Your task to perform on an android device: View the shopping cart on newegg. Add acer predator to the cart on newegg, then select checkout. Image 0: 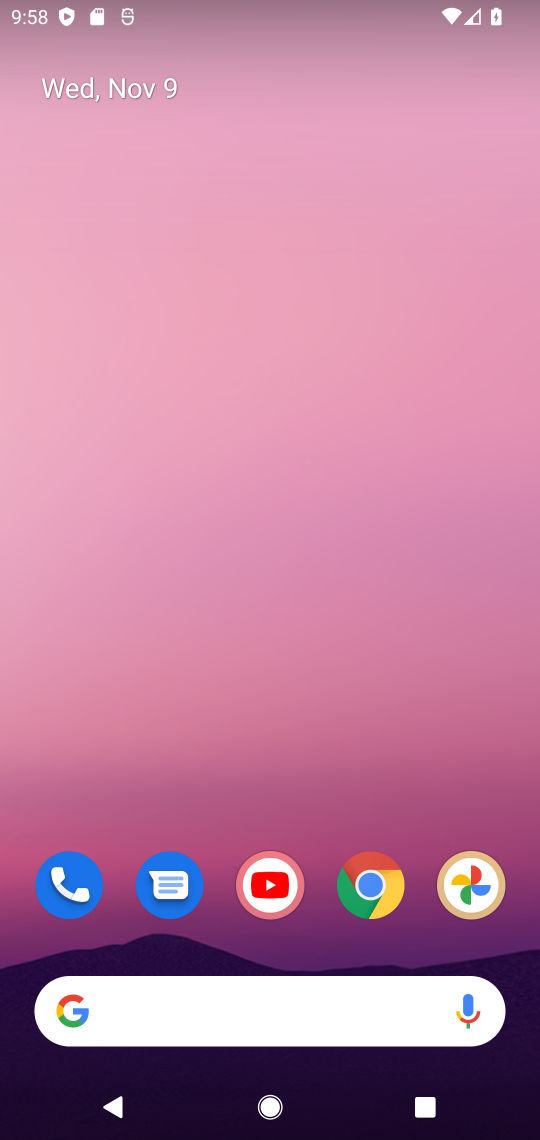
Step 0: click (375, 880)
Your task to perform on an android device: View the shopping cart on newegg. Add acer predator to the cart on newegg, then select checkout. Image 1: 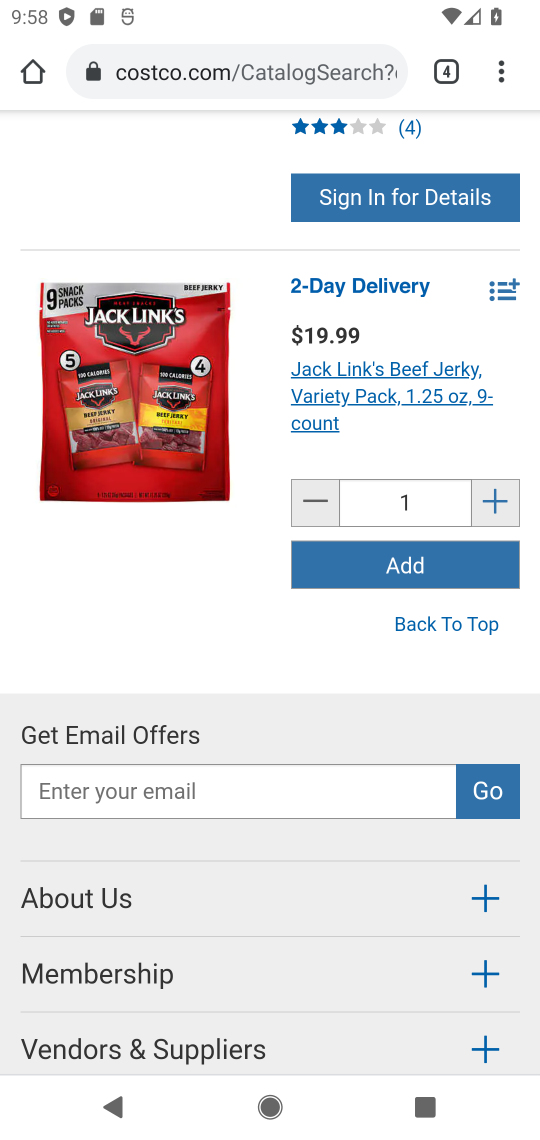
Step 1: click (446, 68)
Your task to perform on an android device: View the shopping cart on newegg. Add acer predator to the cart on newegg, then select checkout. Image 2: 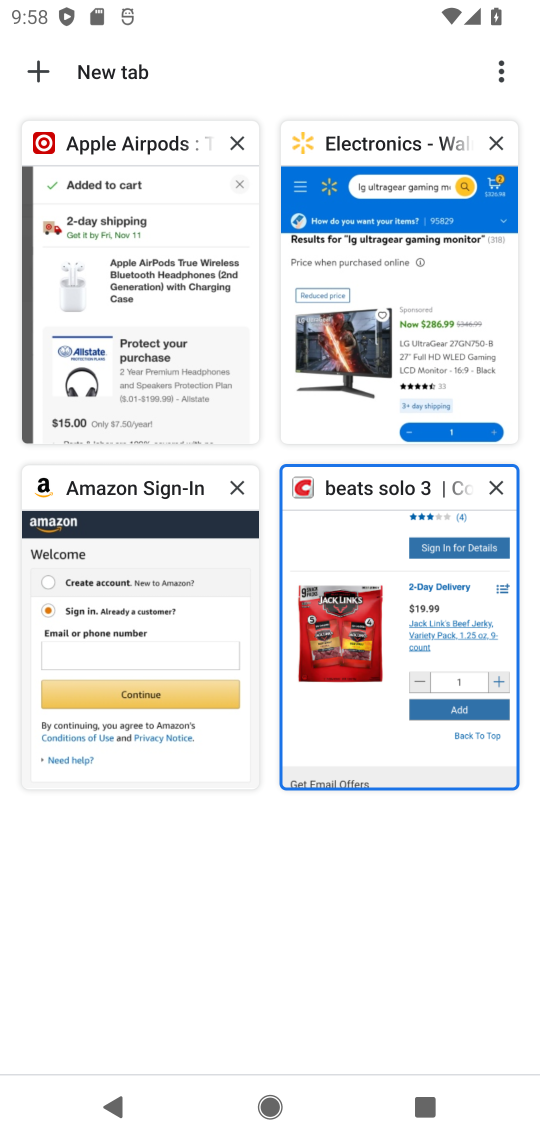
Step 2: click (38, 67)
Your task to perform on an android device: View the shopping cart on newegg. Add acer predator to the cart on newegg, then select checkout. Image 3: 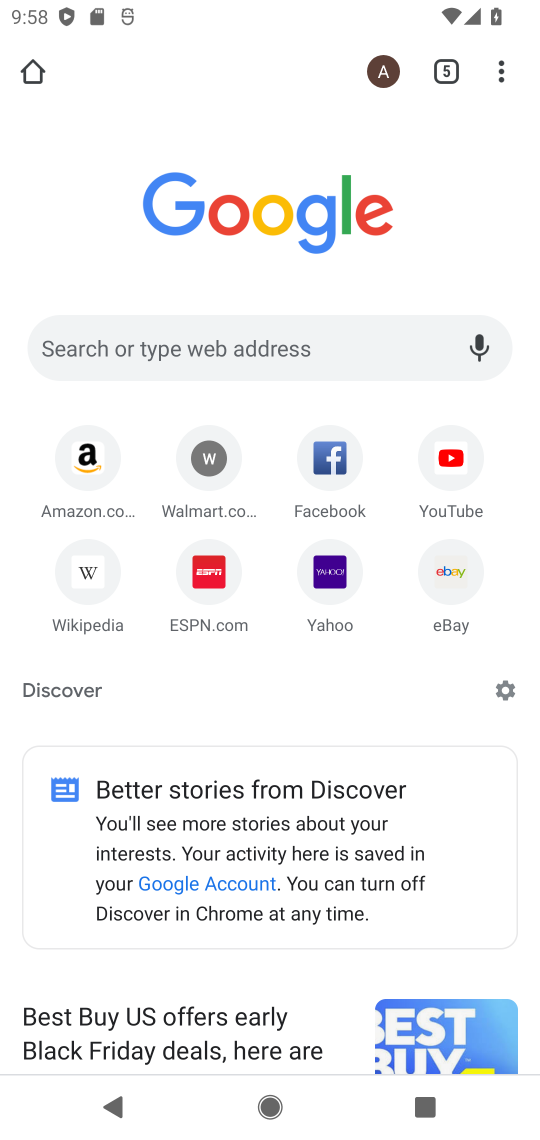
Step 3: click (212, 342)
Your task to perform on an android device: View the shopping cart on newegg. Add acer predator to the cart on newegg, then select checkout. Image 4: 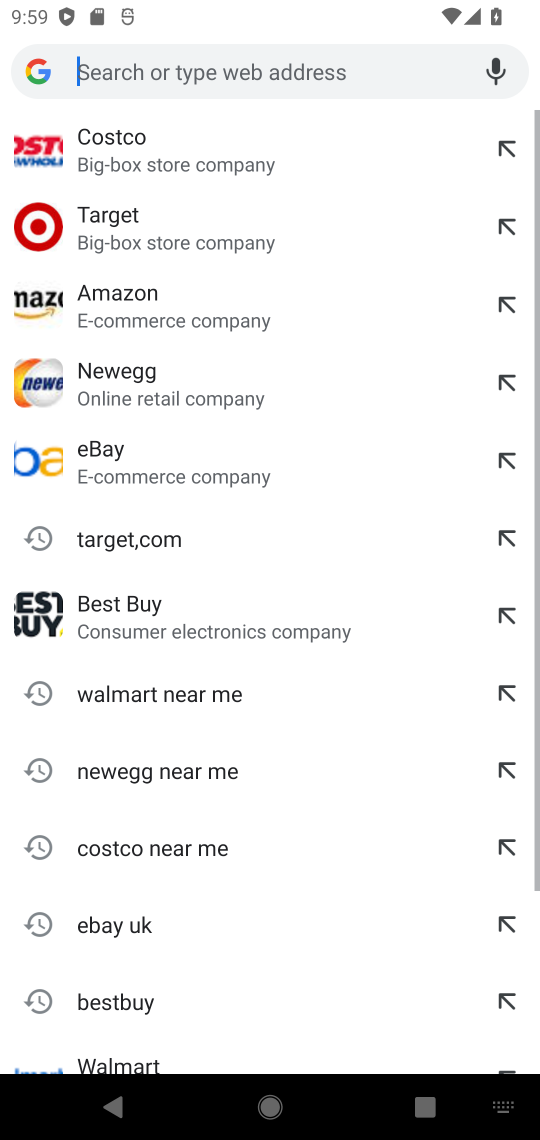
Step 4: click (137, 381)
Your task to perform on an android device: View the shopping cart on newegg. Add acer predator to the cart on newegg, then select checkout. Image 5: 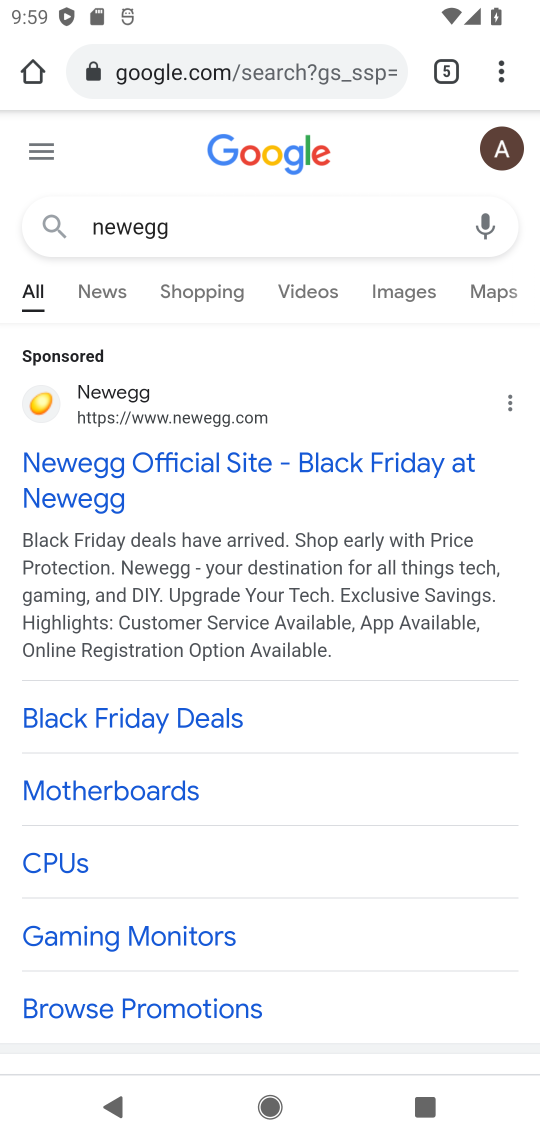
Step 5: click (98, 473)
Your task to perform on an android device: View the shopping cart on newegg. Add acer predator to the cart on newegg, then select checkout. Image 6: 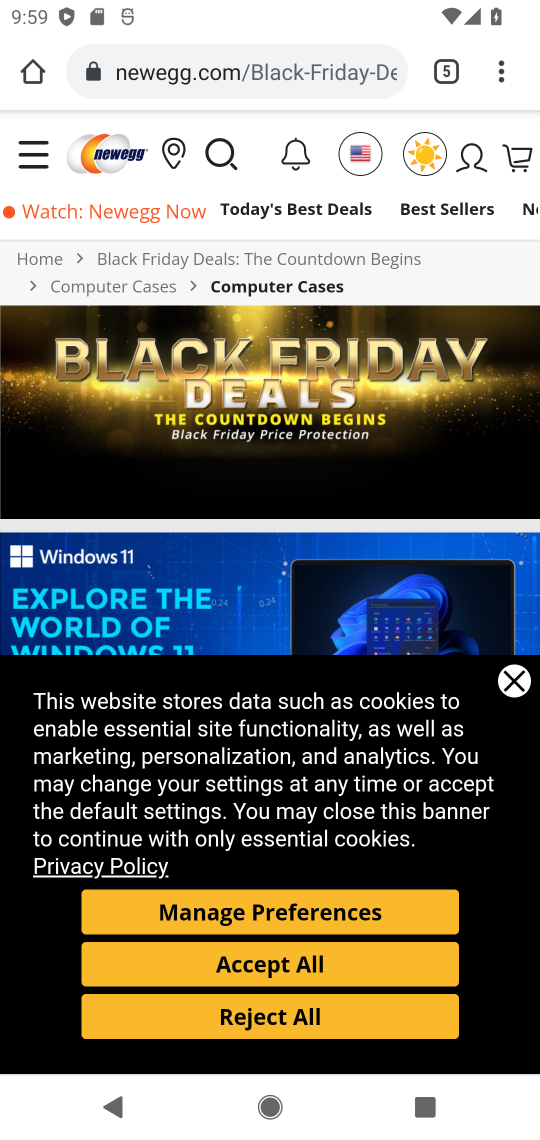
Step 6: click (217, 141)
Your task to perform on an android device: View the shopping cart on newegg. Add acer predator to the cart on newegg, then select checkout. Image 7: 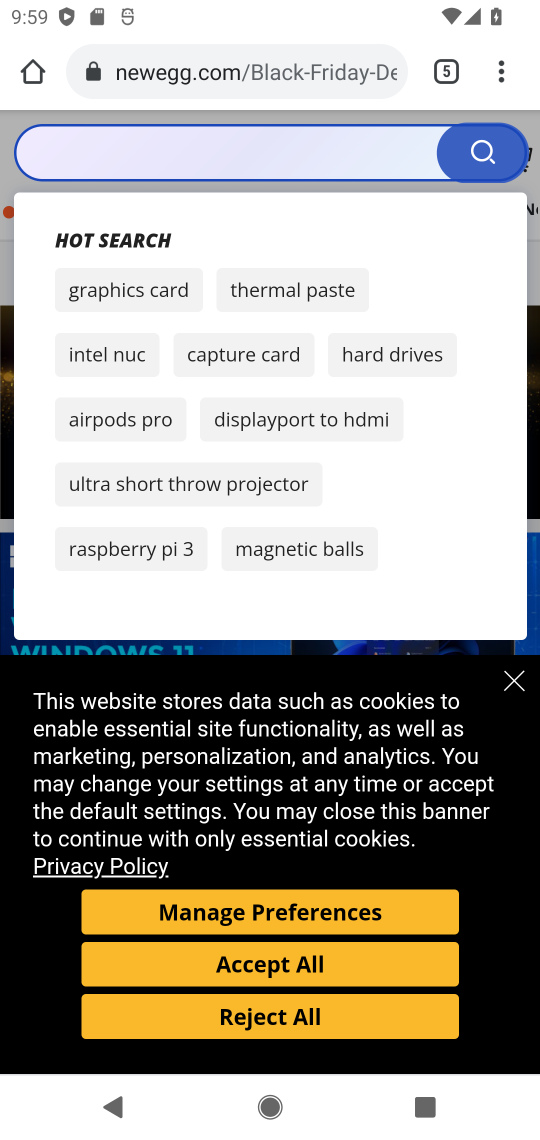
Step 7: click (236, 1015)
Your task to perform on an android device: View the shopping cart on newegg. Add acer predator to the cart on newegg, then select checkout. Image 8: 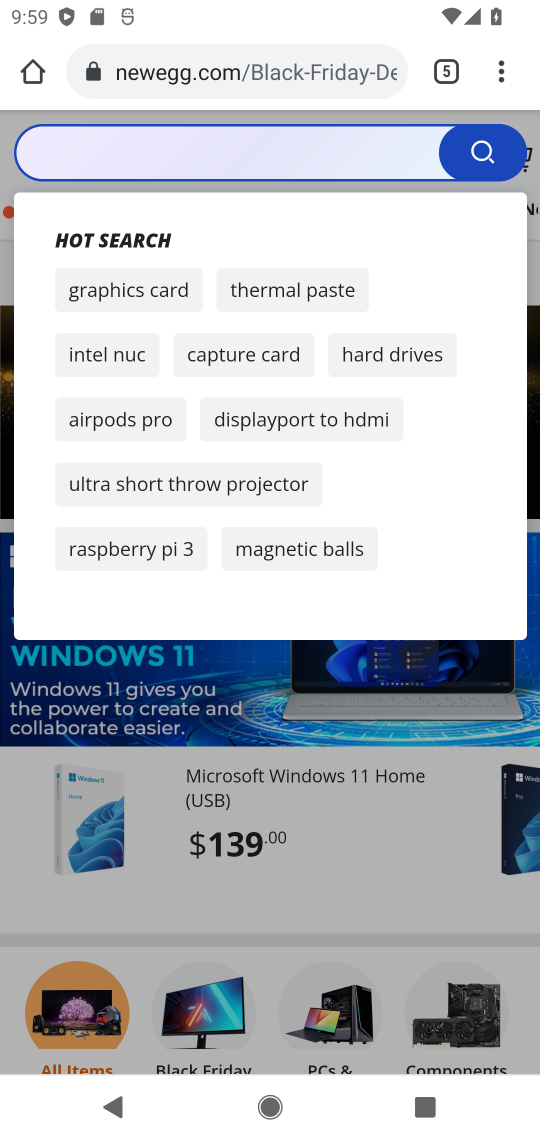
Step 8: click (283, 164)
Your task to perform on an android device: View the shopping cart on newegg. Add acer predator to the cart on newegg, then select checkout. Image 9: 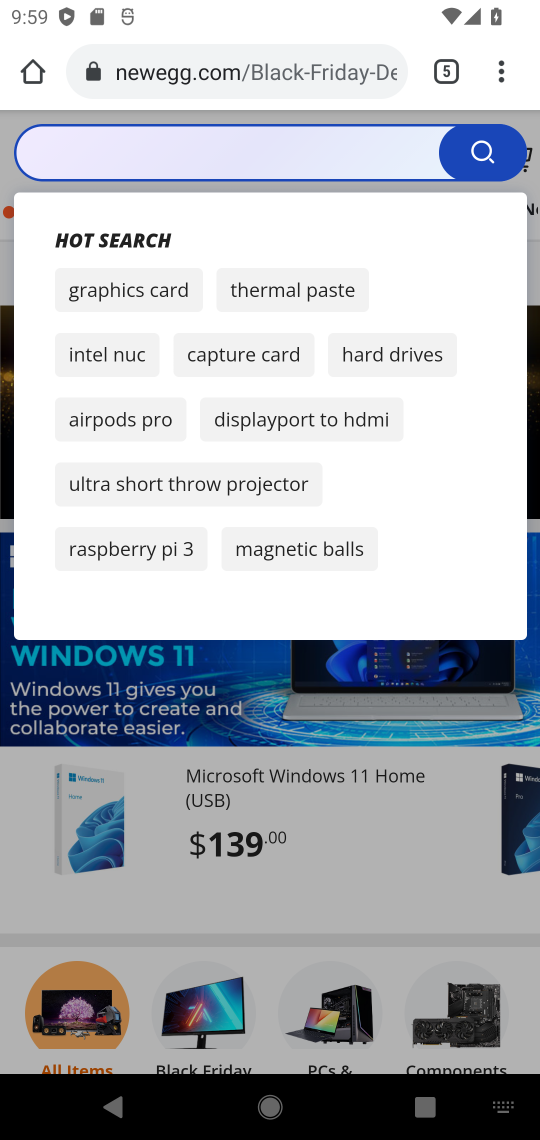
Step 9: type "acer predator "
Your task to perform on an android device: View the shopping cart on newegg. Add acer predator to the cart on newegg, then select checkout. Image 10: 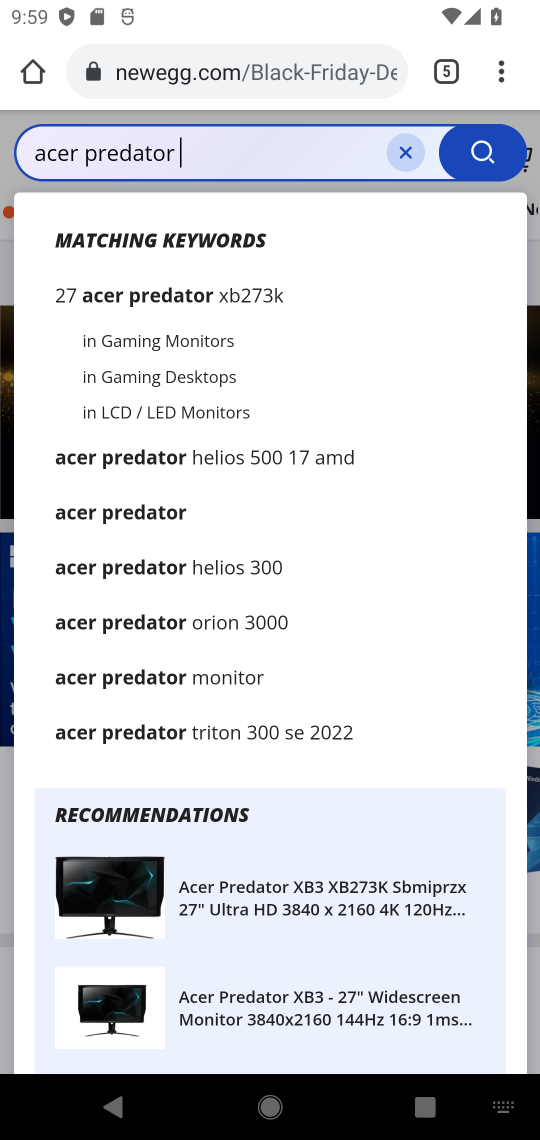
Step 10: click (110, 512)
Your task to perform on an android device: View the shopping cart on newegg. Add acer predator to the cart on newegg, then select checkout. Image 11: 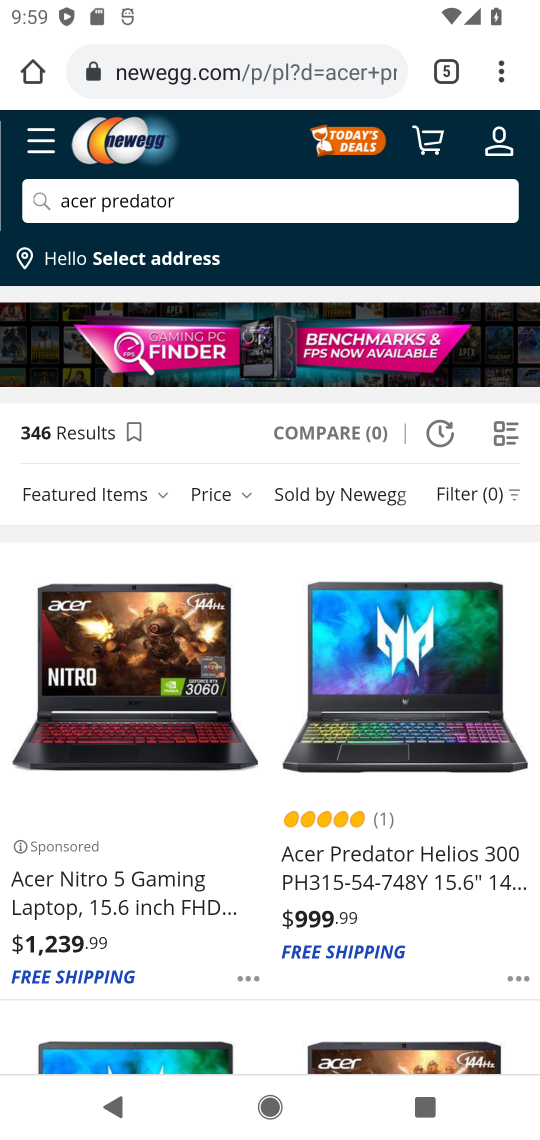
Step 11: click (359, 855)
Your task to perform on an android device: View the shopping cart on newegg. Add acer predator to the cart on newegg, then select checkout. Image 12: 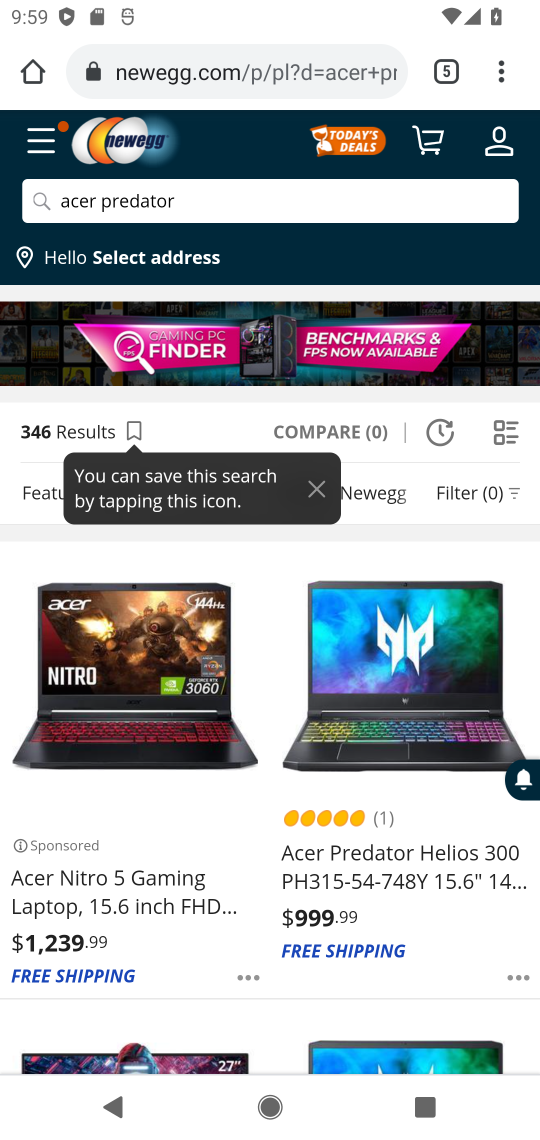
Step 12: click (424, 856)
Your task to perform on an android device: View the shopping cart on newegg. Add acer predator to the cart on newegg, then select checkout. Image 13: 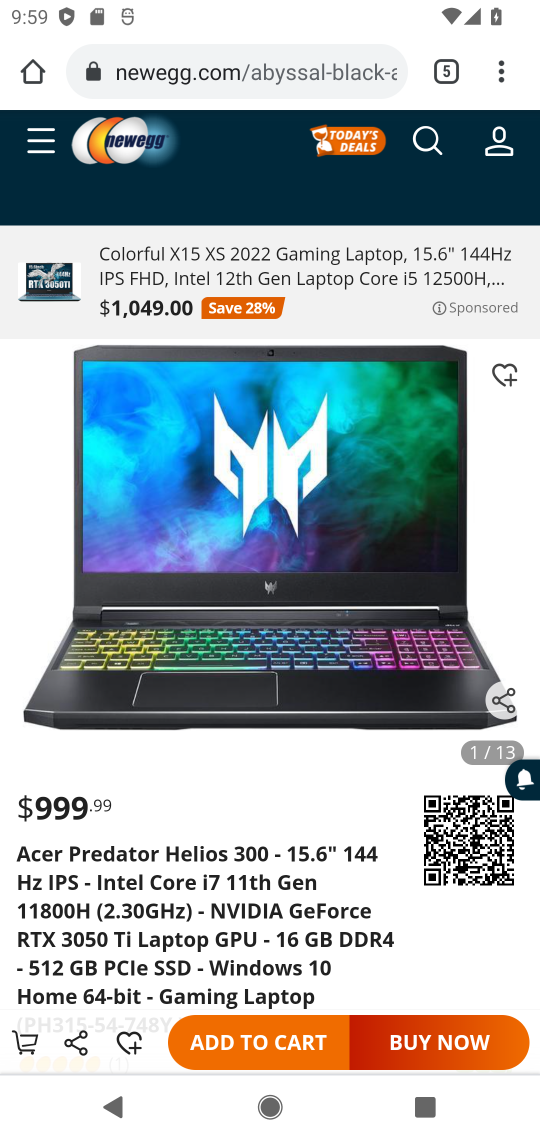
Step 13: click (389, 864)
Your task to perform on an android device: View the shopping cart on newegg. Add acer predator to the cart on newegg, then select checkout. Image 14: 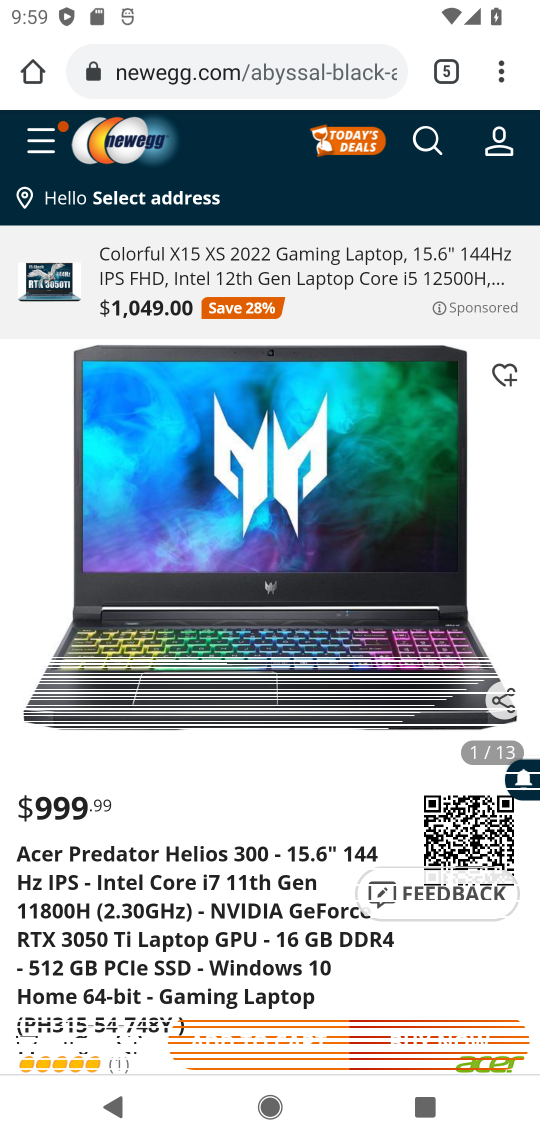
Step 14: click (280, 1052)
Your task to perform on an android device: View the shopping cart on newegg. Add acer predator to the cart on newegg, then select checkout. Image 15: 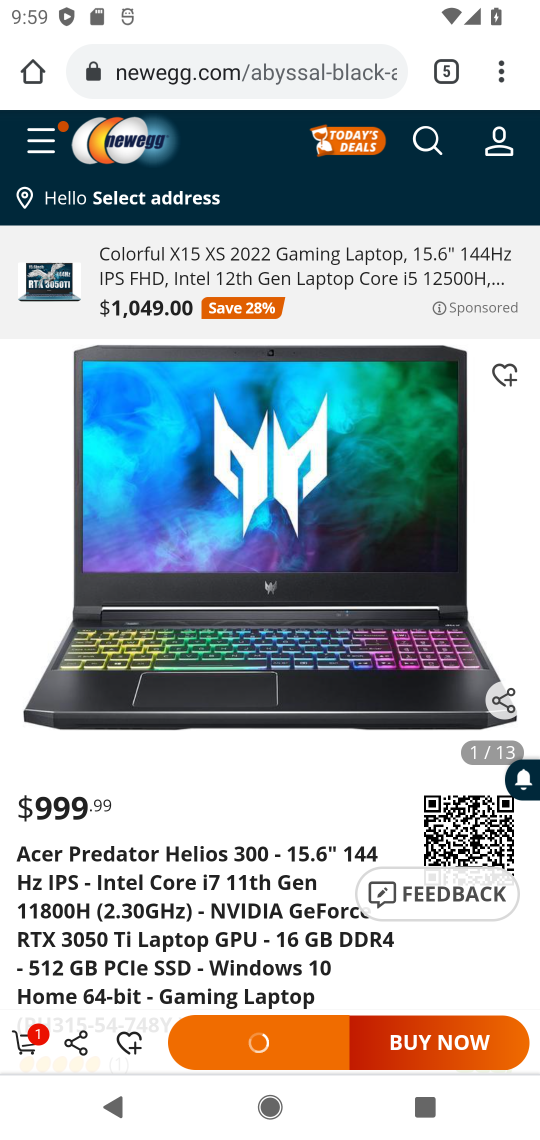
Step 15: click (19, 1034)
Your task to perform on an android device: View the shopping cart on newegg. Add acer predator to the cart on newegg, then select checkout. Image 16: 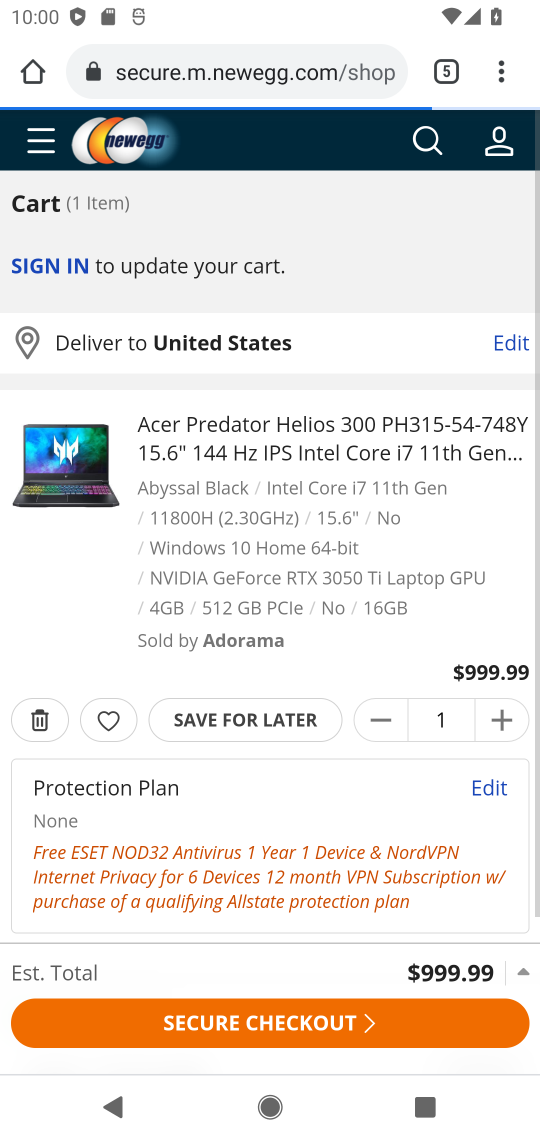
Step 16: click (149, 1041)
Your task to perform on an android device: View the shopping cart on newegg. Add acer predator to the cart on newegg, then select checkout. Image 17: 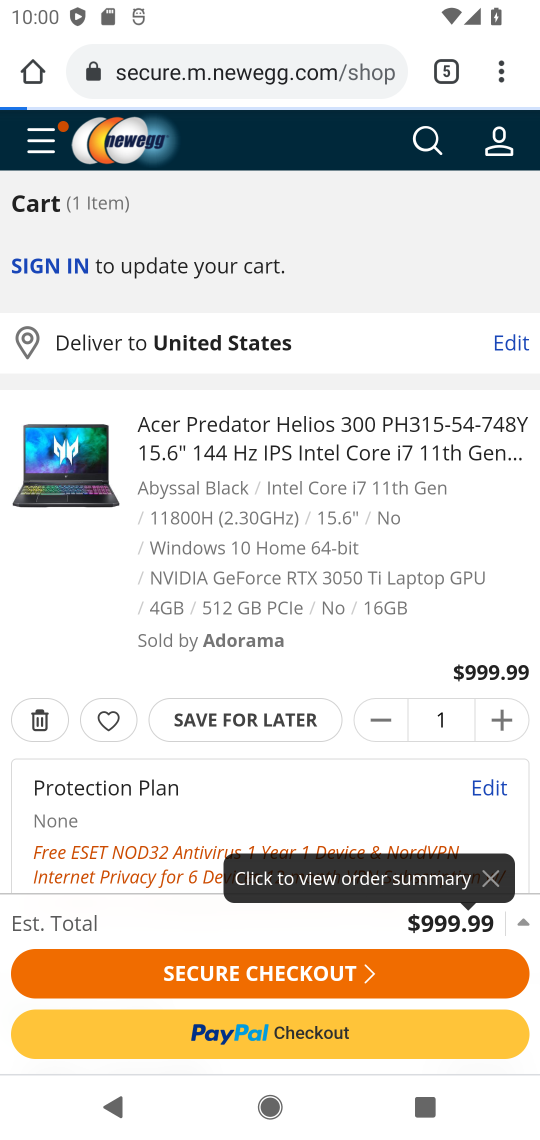
Step 17: click (346, 978)
Your task to perform on an android device: View the shopping cart on newegg. Add acer predator to the cart on newegg, then select checkout. Image 18: 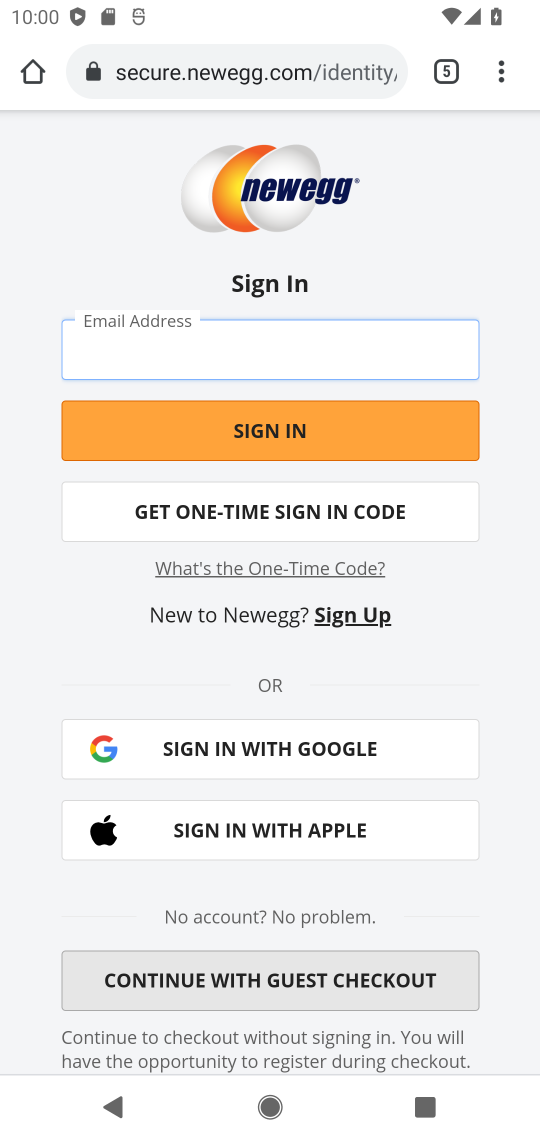
Step 18: task complete